Your task to perform on an android device: Add duracell triple a to the cart on costco Image 0: 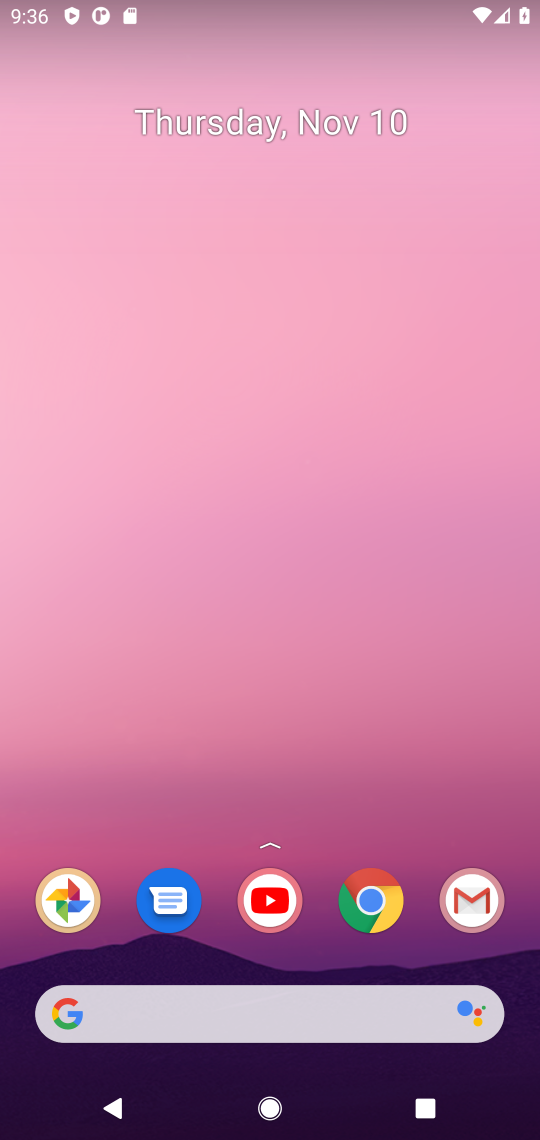
Step 0: click (367, 903)
Your task to perform on an android device: Add duracell triple a to the cart on costco Image 1: 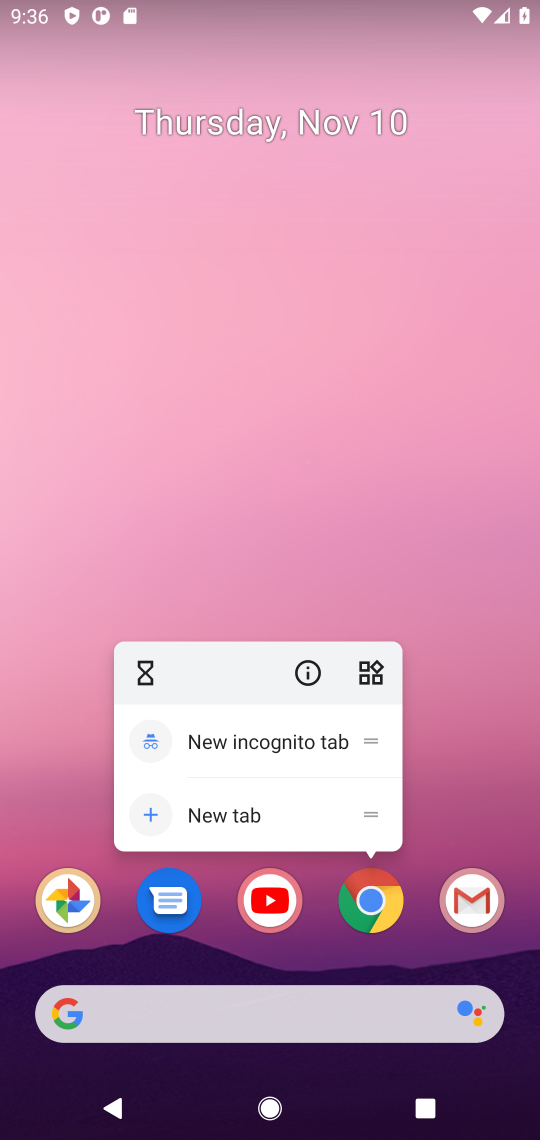
Step 1: click (367, 903)
Your task to perform on an android device: Add duracell triple a to the cart on costco Image 2: 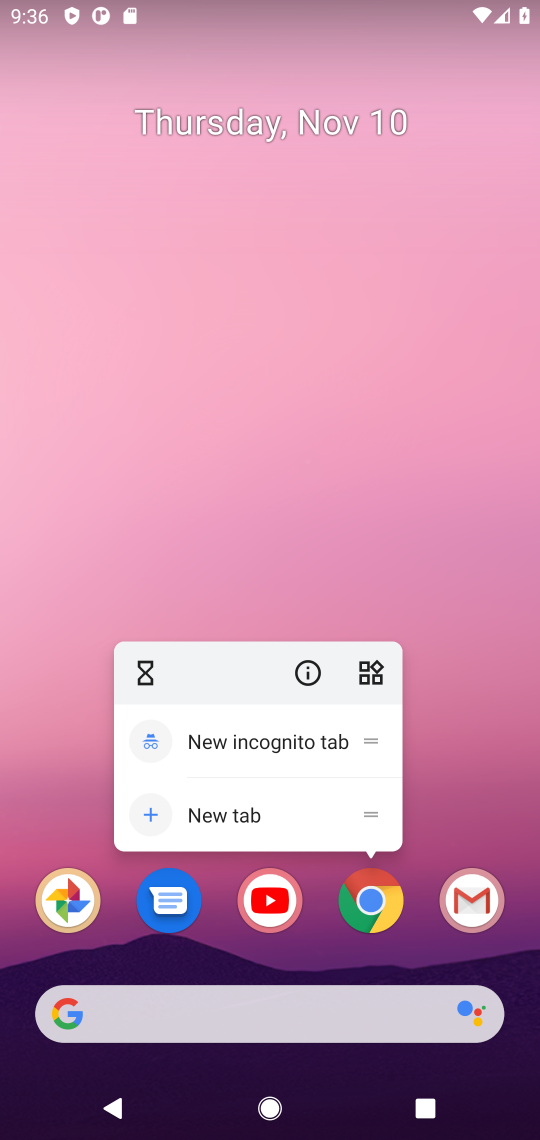
Step 2: click (373, 903)
Your task to perform on an android device: Add duracell triple a to the cart on costco Image 3: 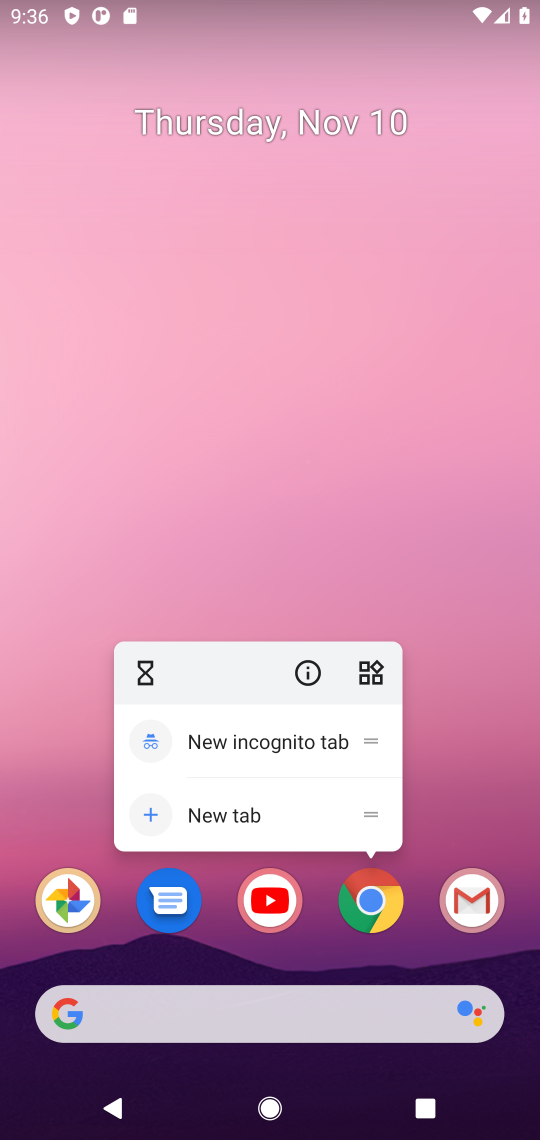
Step 3: click (373, 905)
Your task to perform on an android device: Add duracell triple a to the cart on costco Image 4: 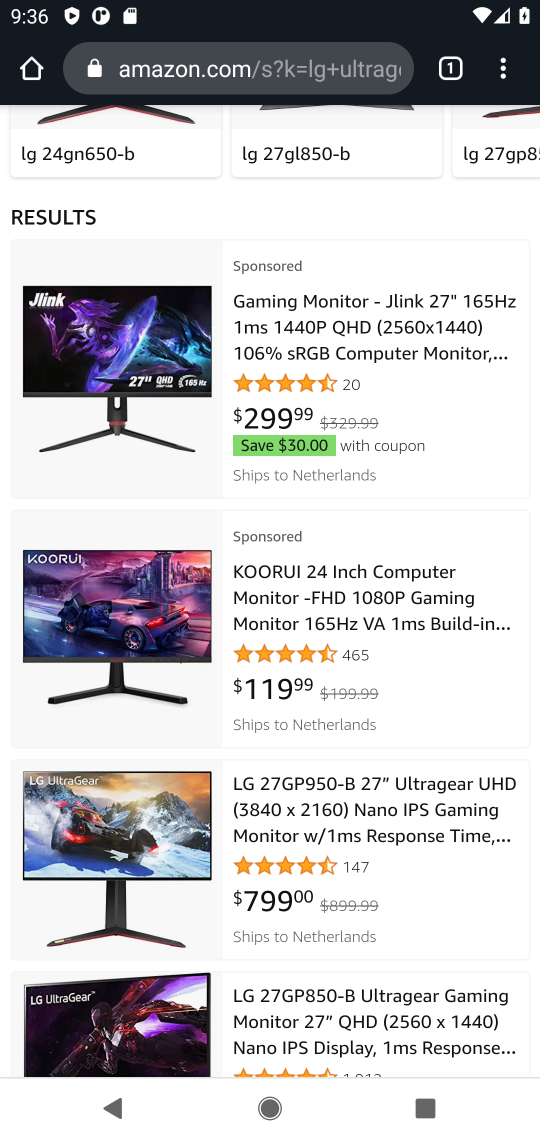
Step 4: click (290, 77)
Your task to perform on an android device: Add duracell triple a to the cart on costco Image 5: 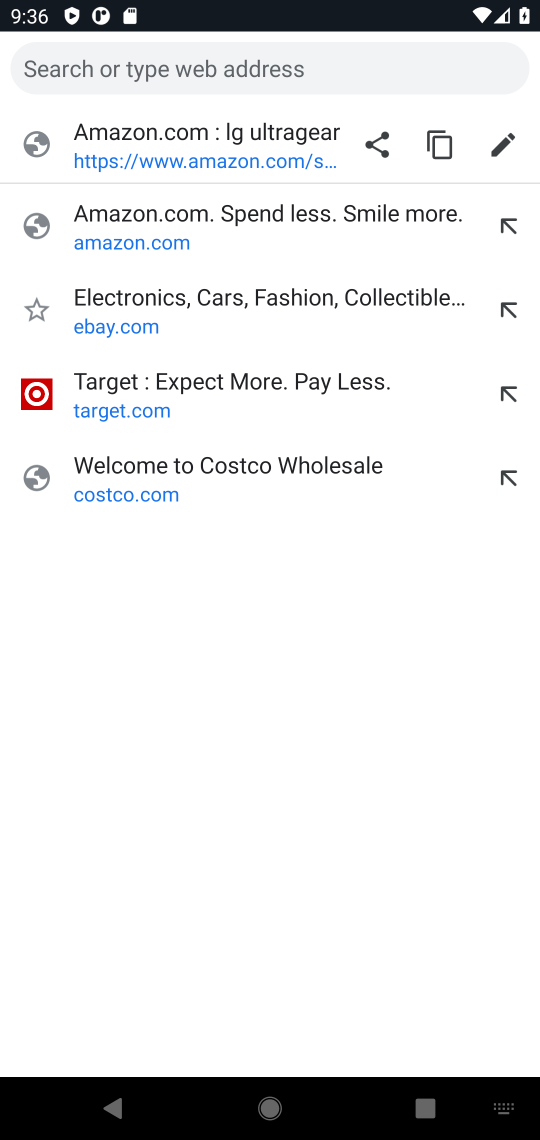
Step 5: type " costco"
Your task to perform on an android device: Add duracell triple a to the cart on costco Image 6: 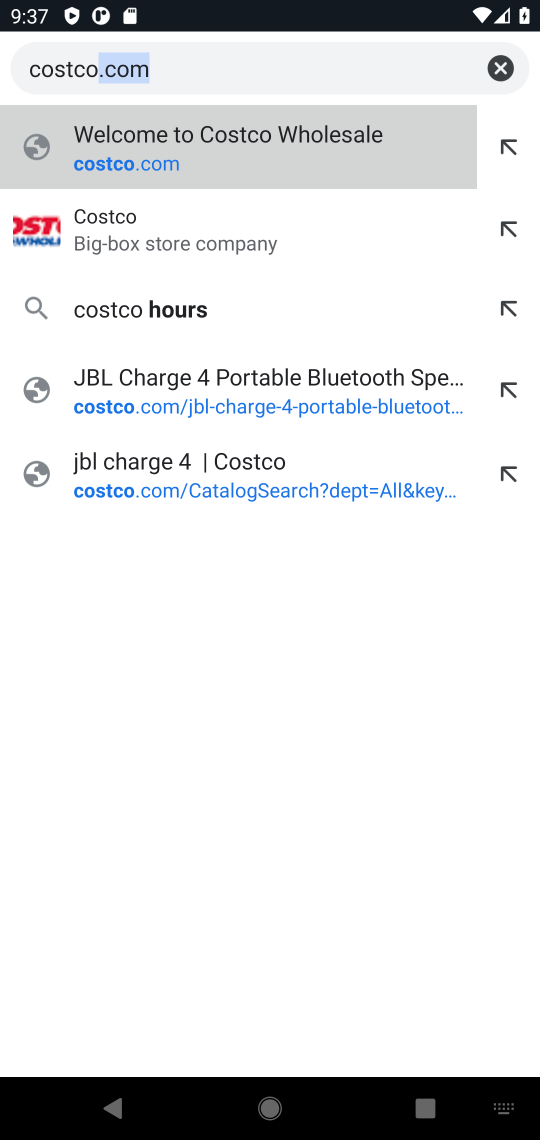
Step 6: press enter
Your task to perform on an android device: Add duracell triple a to the cart on costco Image 7: 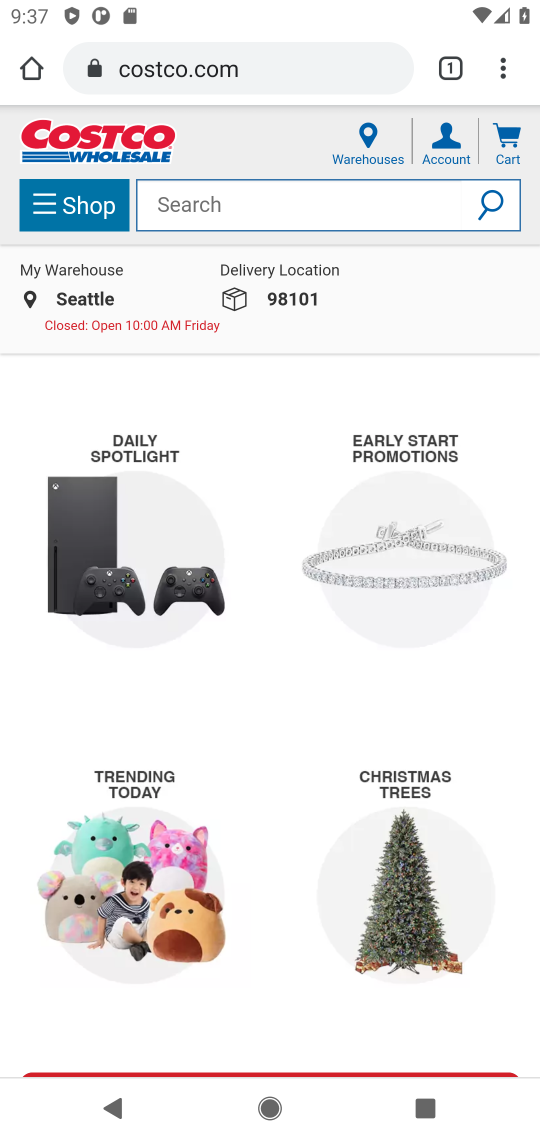
Step 7: click (353, 211)
Your task to perform on an android device: Add duracell triple a to the cart on costco Image 8: 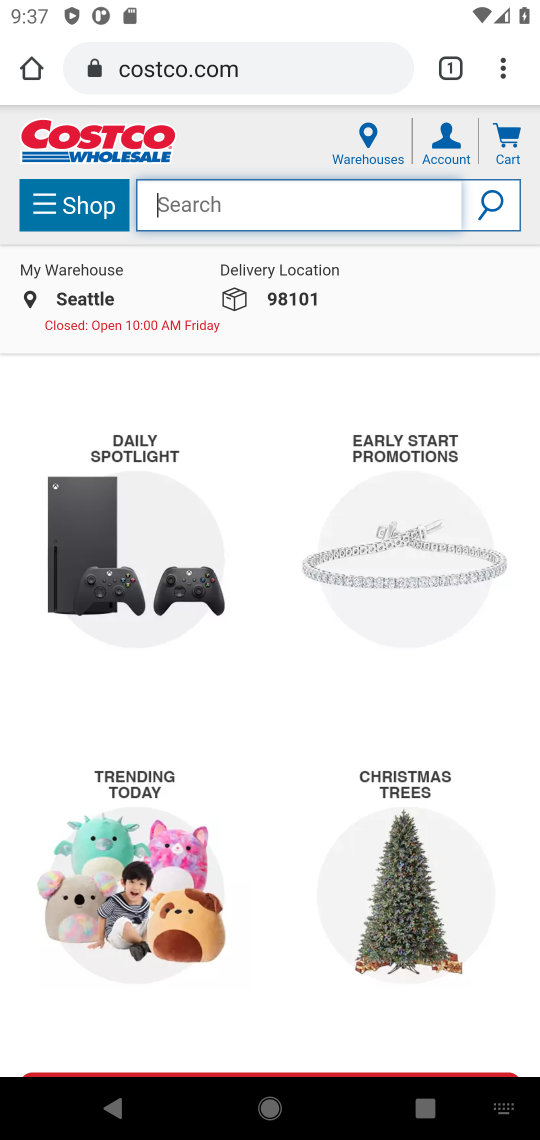
Step 8: type " duracell triple a "
Your task to perform on an android device: Add duracell triple a to the cart on costco Image 9: 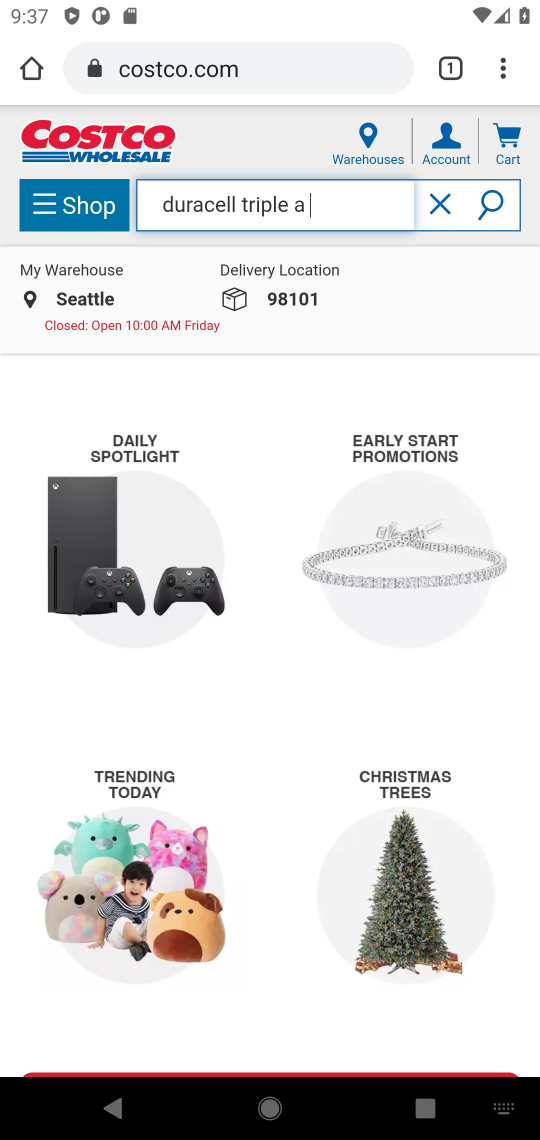
Step 9: press enter
Your task to perform on an android device: Add duracell triple a to the cart on costco Image 10: 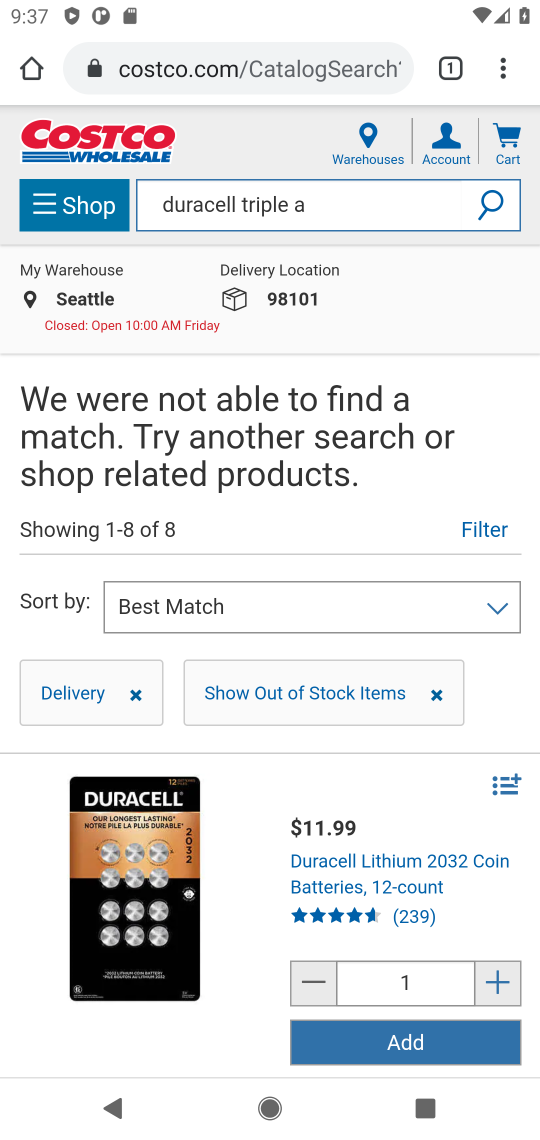
Step 10: task complete